Your task to perform on an android device: stop showing notifications on the lock screen Image 0: 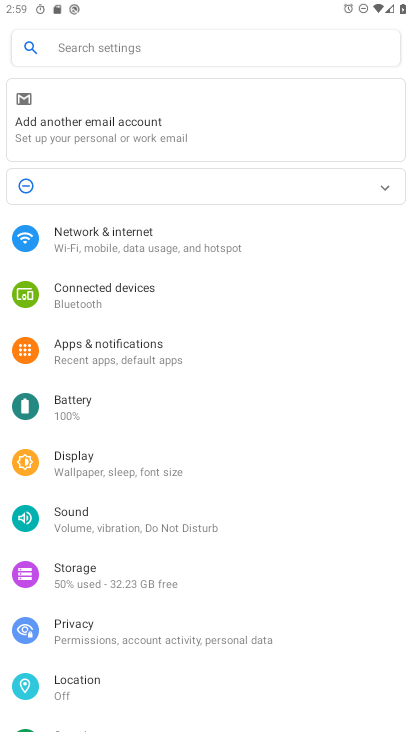
Step 0: drag from (179, 577) to (226, 117)
Your task to perform on an android device: stop showing notifications on the lock screen Image 1: 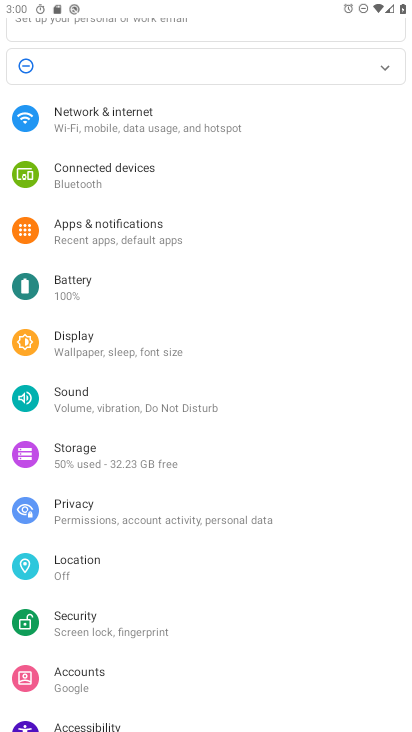
Step 1: click (105, 247)
Your task to perform on an android device: stop showing notifications on the lock screen Image 2: 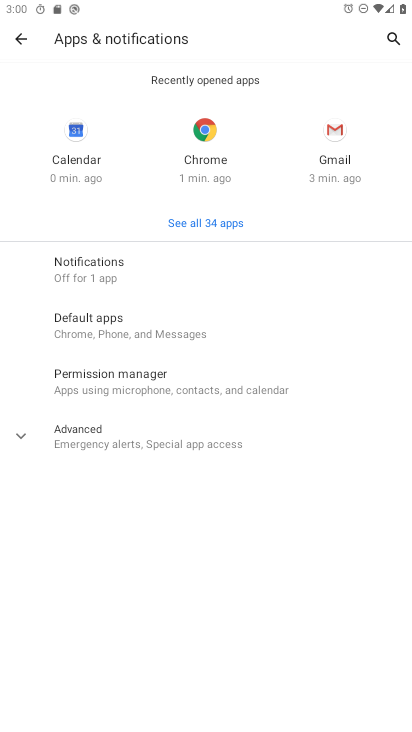
Step 2: click (104, 268)
Your task to perform on an android device: stop showing notifications on the lock screen Image 3: 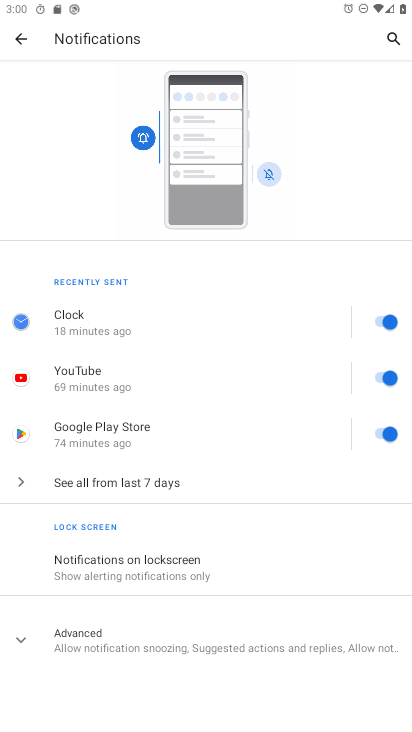
Step 3: drag from (265, 532) to (326, 136)
Your task to perform on an android device: stop showing notifications on the lock screen Image 4: 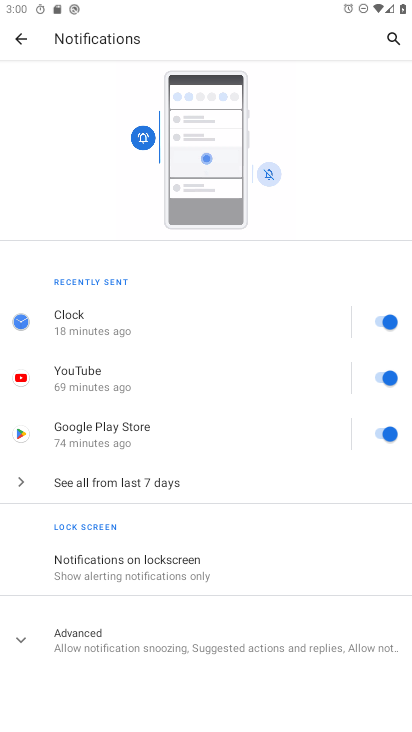
Step 4: click (149, 571)
Your task to perform on an android device: stop showing notifications on the lock screen Image 5: 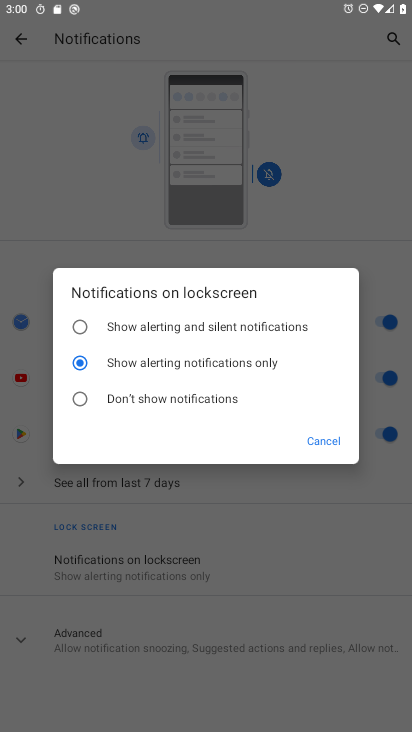
Step 5: click (89, 401)
Your task to perform on an android device: stop showing notifications on the lock screen Image 6: 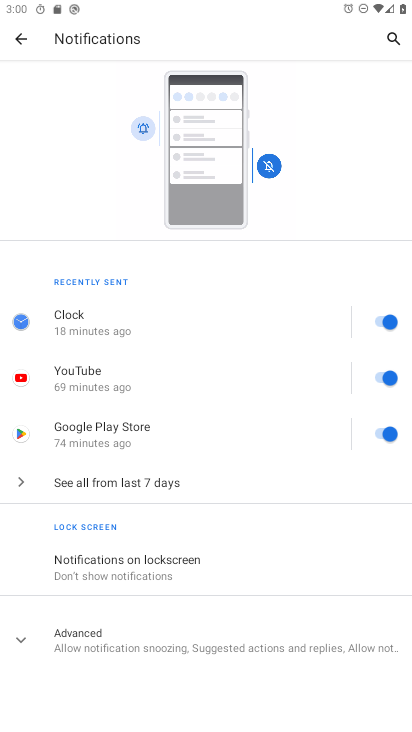
Step 6: task complete